Your task to perform on an android device: What is the news today? Image 0: 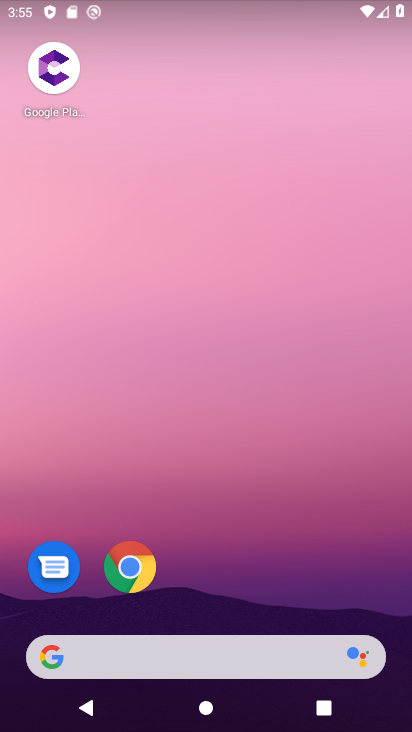
Step 0: drag from (250, 597) to (288, 99)
Your task to perform on an android device: What is the news today? Image 1: 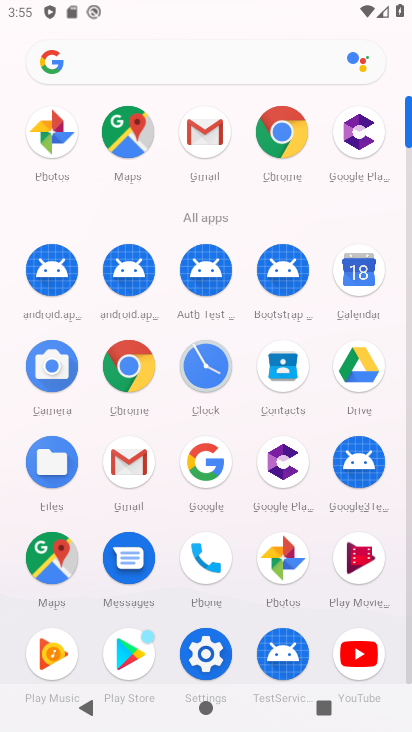
Step 1: click (125, 370)
Your task to perform on an android device: What is the news today? Image 2: 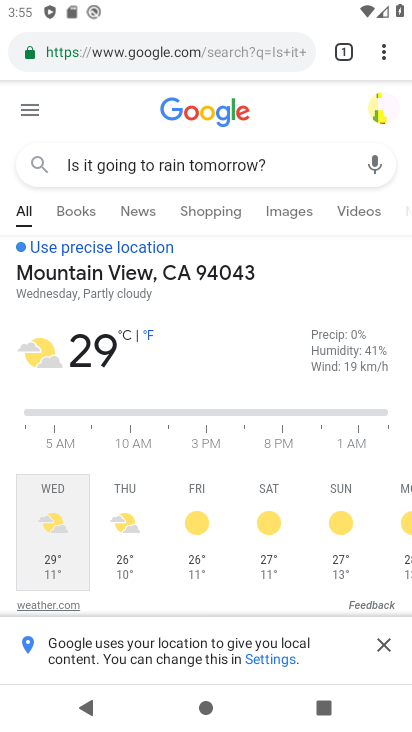
Step 2: click (260, 56)
Your task to perform on an android device: What is the news today? Image 3: 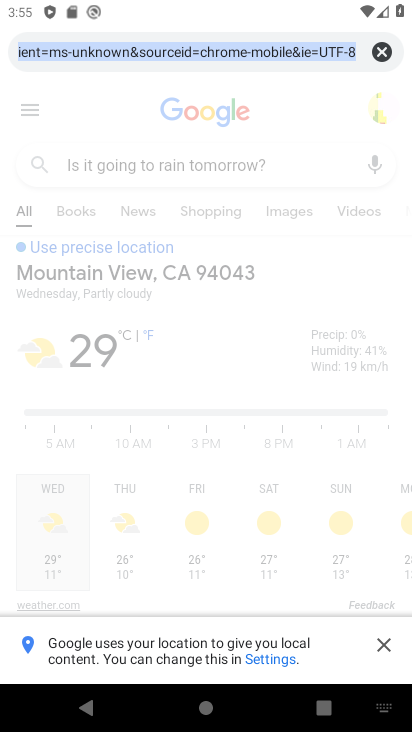
Step 3: click (382, 44)
Your task to perform on an android device: What is the news today? Image 4: 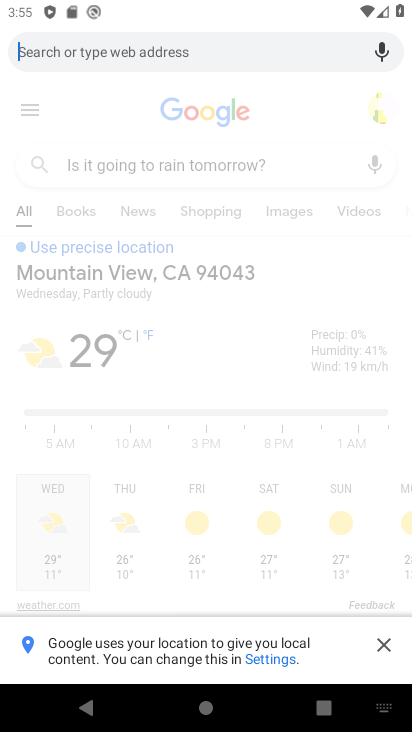
Step 4: click (348, 731)
Your task to perform on an android device: What is the news today? Image 5: 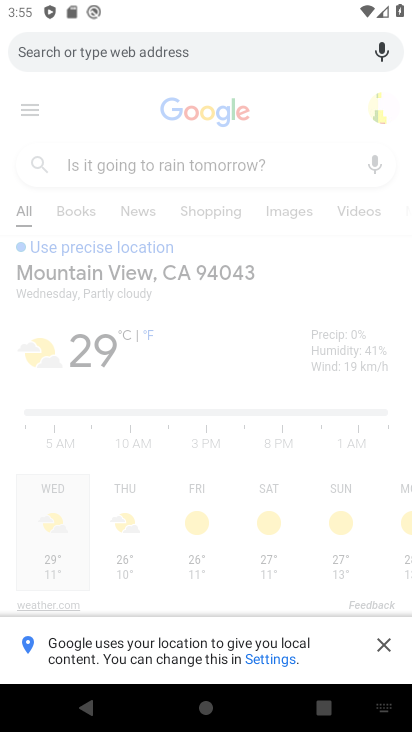
Step 5: type "What is the news today?"
Your task to perform on an android device: What is the news today? Image 6: 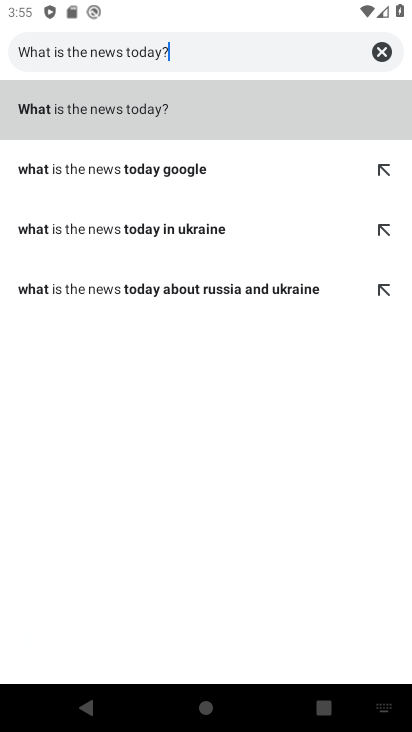
Step 6: click (96, 109)
Your task to perform on an android device: What is the news today? Image 7: 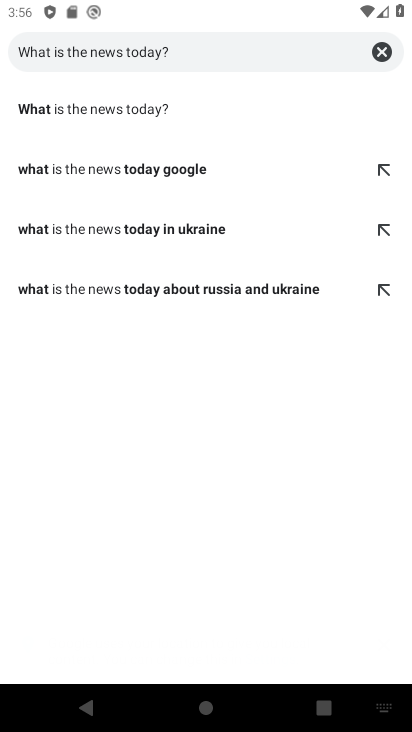
Step 7: click (121, 109)
Your task to perform on an android device: What is the news today? Image 8: 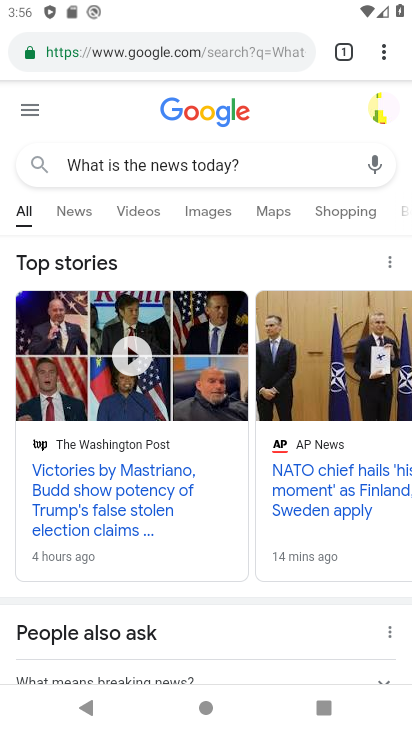
Step 8: click (74, 213)
Your task to perform on an android device: What is the news today? Image 9: 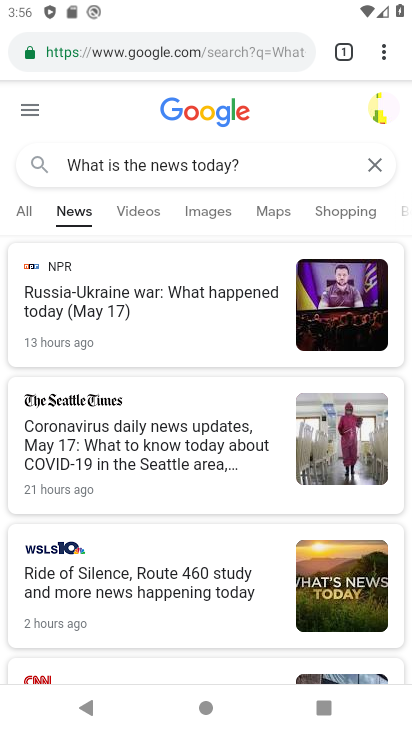
Step 9: task complete